Your task to perform on an android device: Open Wikipedia Image 0: 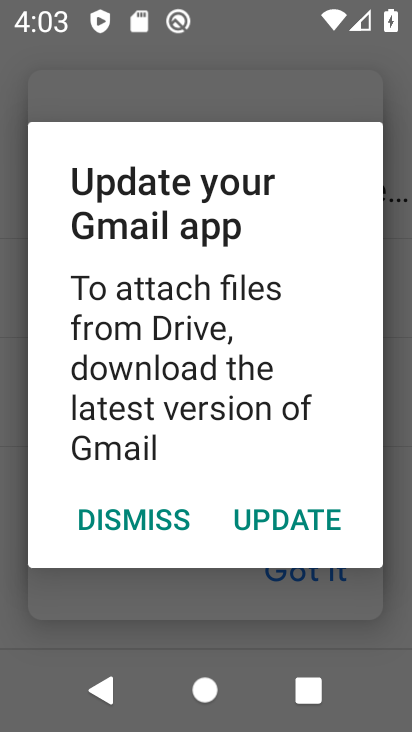
Step 0: press home button
Your task to perform on an android device: Open Wikipedia Image 1: 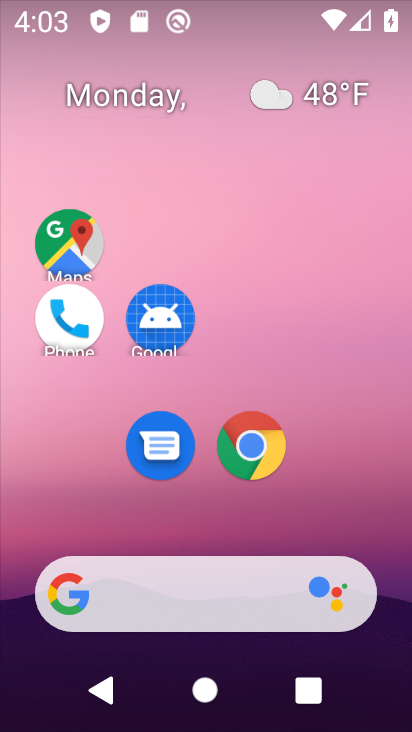
Step 1: click (252, 428)
Your task to perform on an android device: Open Wikipedia Image 2: 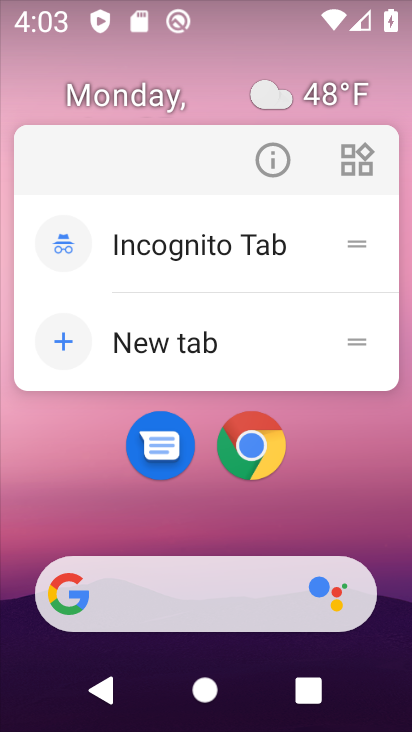
Step 2: click (249, 442)
Your task to perform on an android device: Open Wikipedia Image 3: 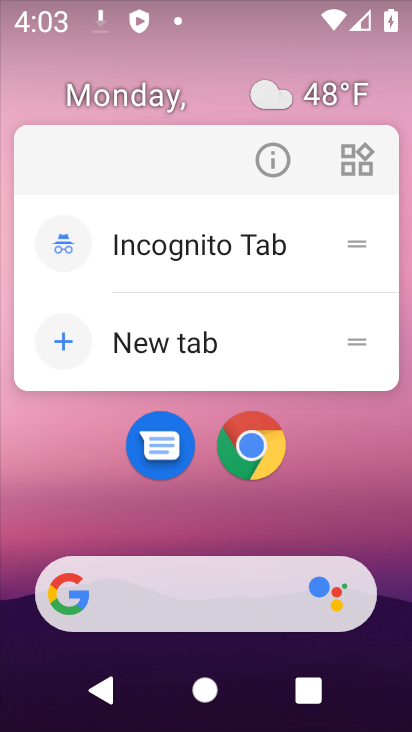
Step 3: click (249, 442)
Your task to perform on an android device: Open Wikipedia Image 4: 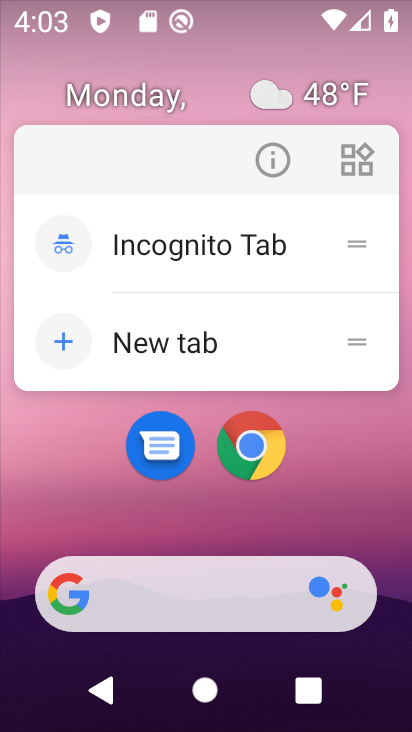
Step 4: click (249, 442)
Your task to perform on an android device: Open Wikipedia Image 5: 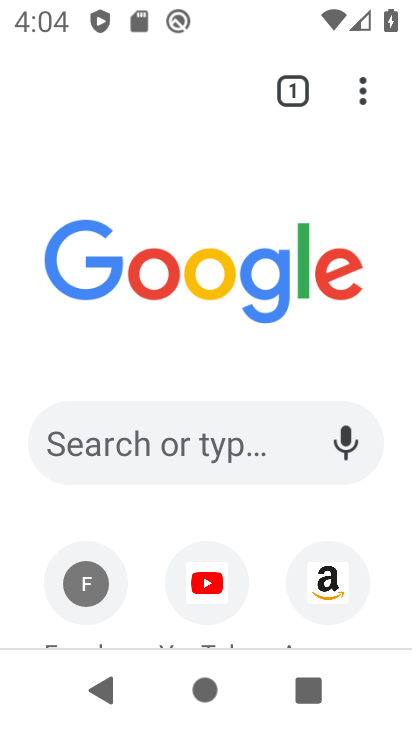
Step 5: drag from (259, 538) to (258, 286)
Your task to perform on an android device: Open Wikipedia Image 6: 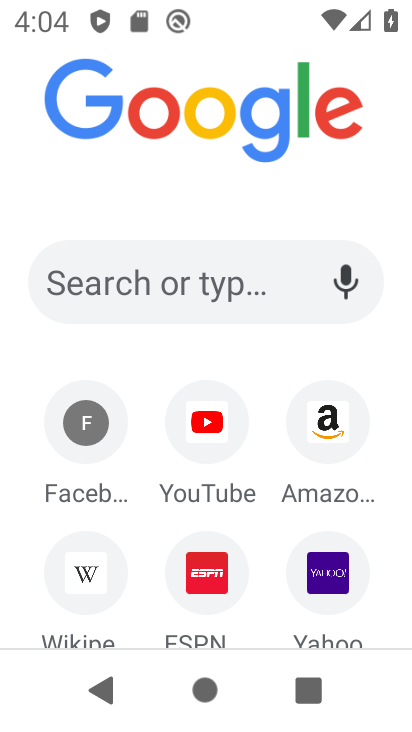
Step 6: click (82, 578)
Your task to perform on an android device: Open Wikipedia Image 7: 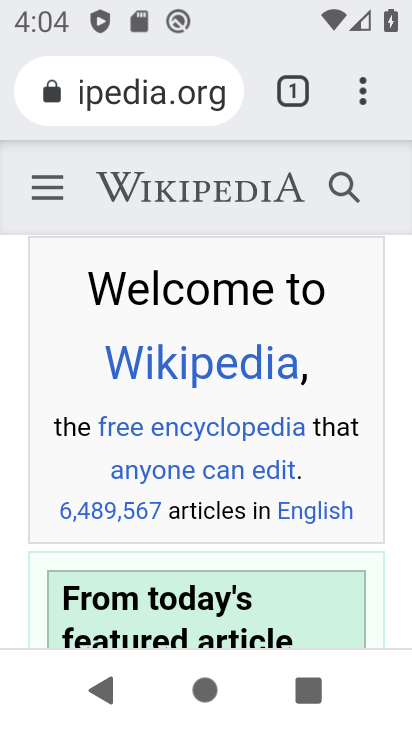
Step 7: task complete